Your task to perform on an android device: turn on showing notifications on the lock screen Image 0: 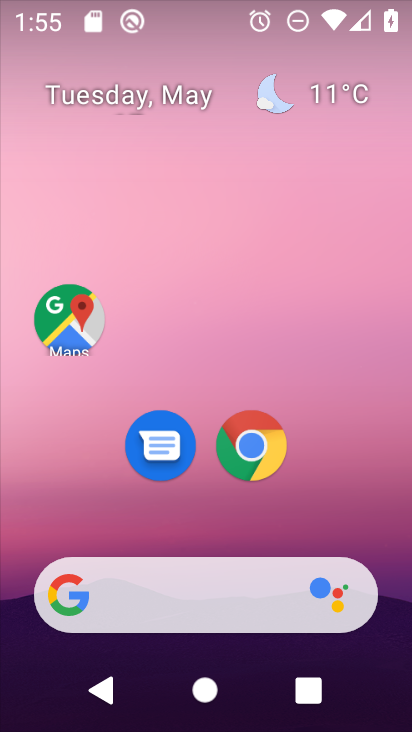
Step 0: drag from (360, 527) to (314, 0)
Your task to perform on an android device: turn on showing notifications on the lock screen Image 1: 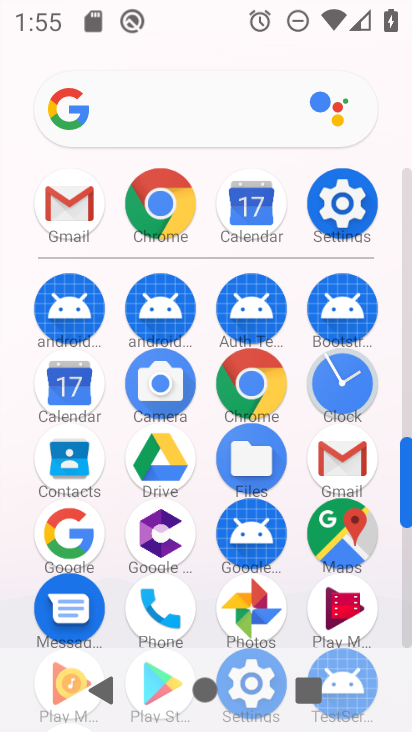
Step 1: click (350, 223)
Your task to perform on an android device: turn on showing notifications on the lock screen Image 2: 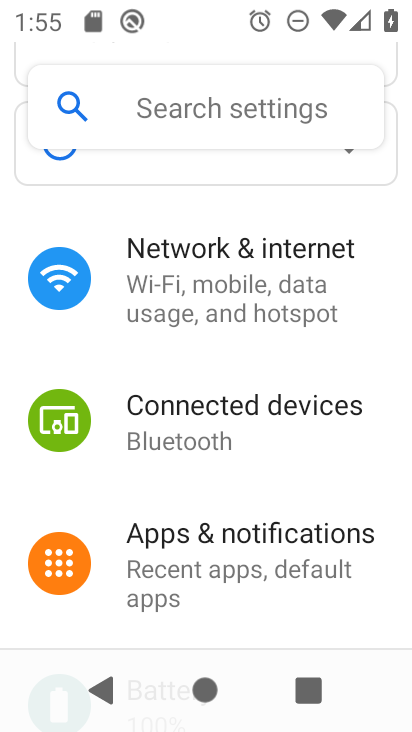
Step 2: drag from (294, 557) to (214, 192)
Your task to perform on an android device: turn on showing notifications on the lock screen Image 3: 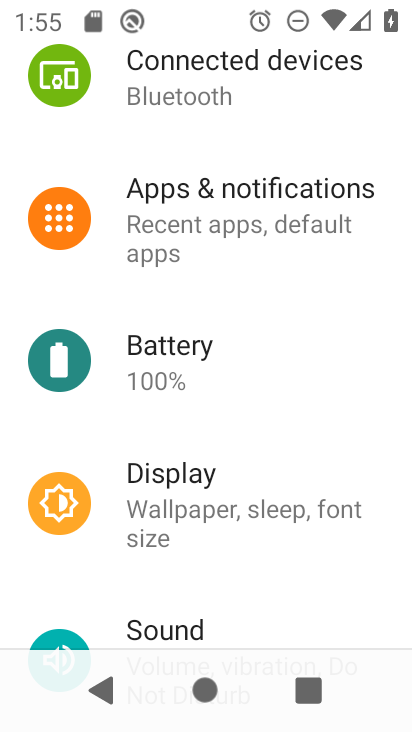
Step 3: click (213, 195)
Your task to perform on an android device: turn on showing notifications on the lock screen Image 4: 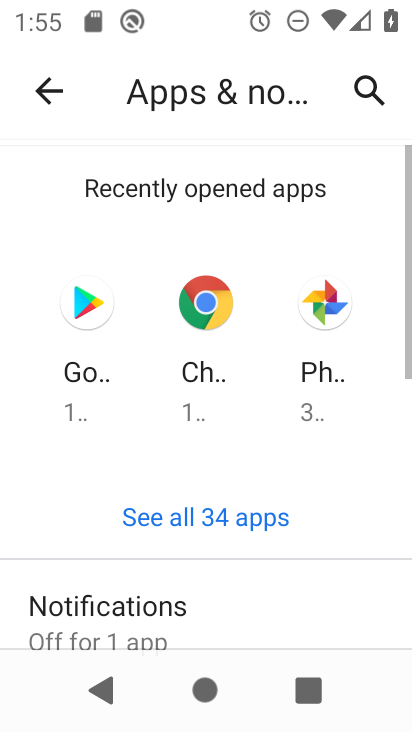
Step 4: click (172, 634)
Your task to perform on an android device: turn on showing notifications on the lock screen Image 5: 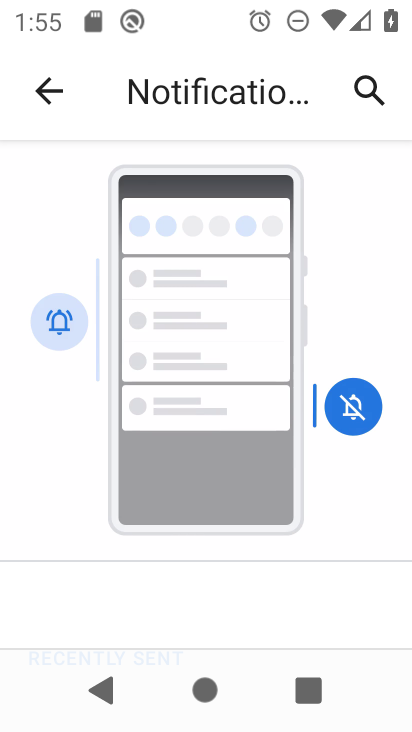
Step 5: drag from (131, 607) to (70, 326)
Your task to perform on an android device: turn on showing notifications on the lock screen Image 6: 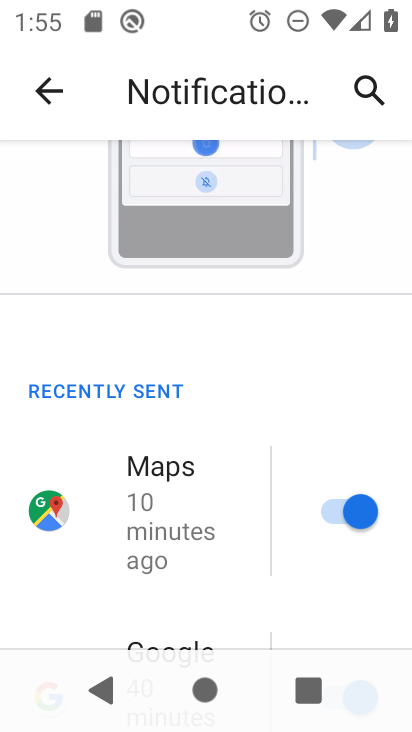
Step 6: drag from (191, 604) to (126, 184)
Your task to perform on an android device: turn on showing notifications on the lock screen Image 7: 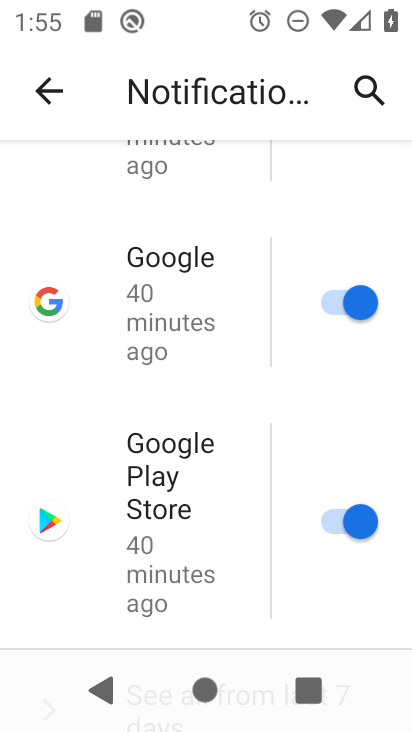
Step 7: drag from (161, 621) to (137, 227)
Your task to perform on an android device: turn on showing notifications on the lock screen Image 8: 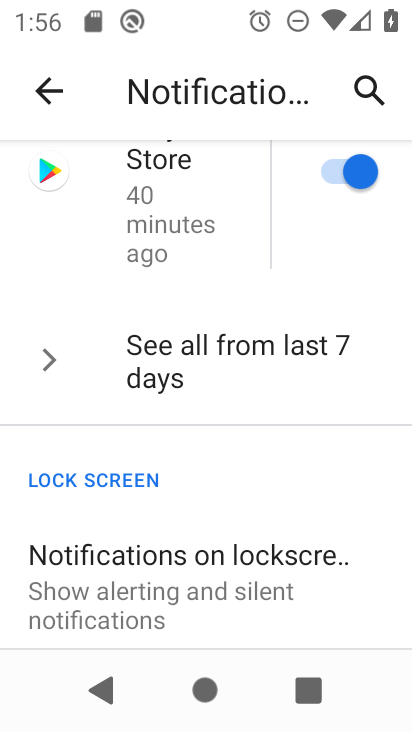
Step 8: drag from (133, 490) to (64, 226)
Your task to perform on an android device: turn on showing notifications on the lock screen Image 9: 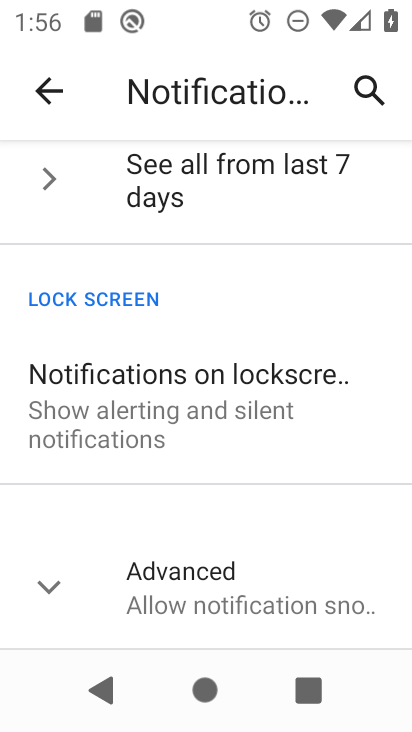
Step 9: click (72, 381)
Your task to perform on an android device: turn on showing notifications on the lock screen Image 10: 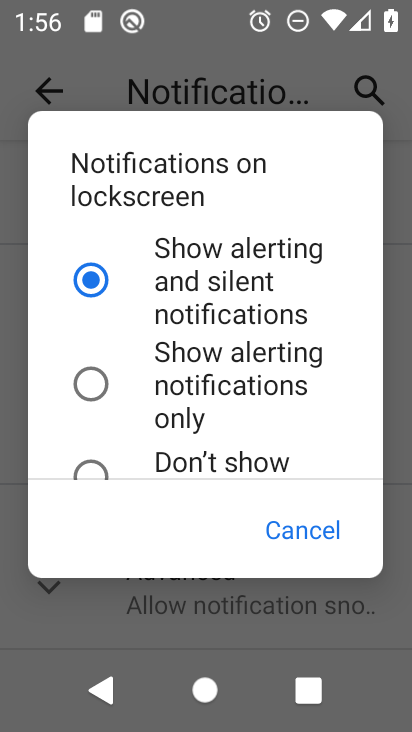
Step 10: task complete